Your task to perform on an android device: find which apps use the phone's location Image 0: 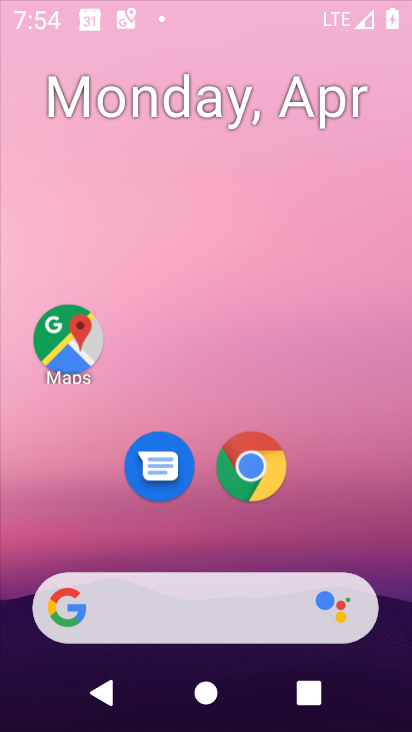
Step 0: click (301, 133)
Your task to perform on an android device: find which apps use the phone's location Image 1: 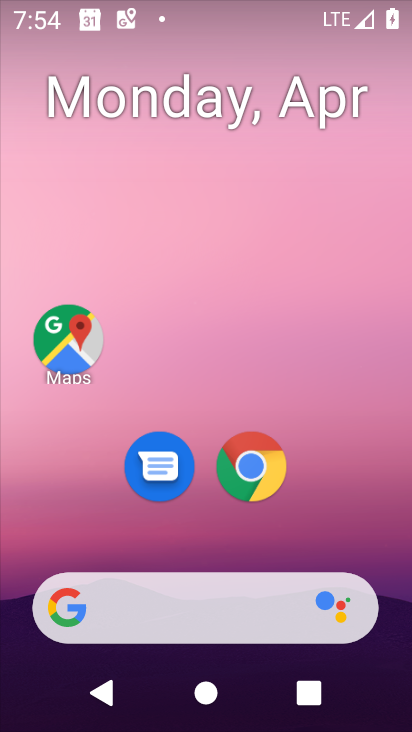
Step 1: click (237, 134)
Your task to perform on an android device: find which apps use the phone's location Image 2: 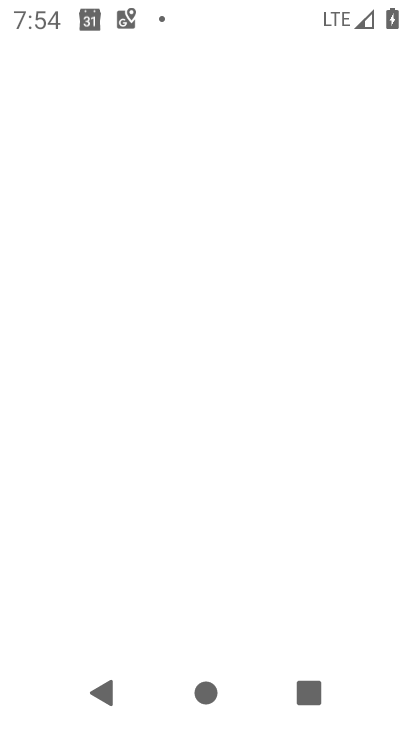
Step 2: drag from (209, 603) to (220, 359)
Your task to perform on an android device: find which apps use the phone's location Image 3: 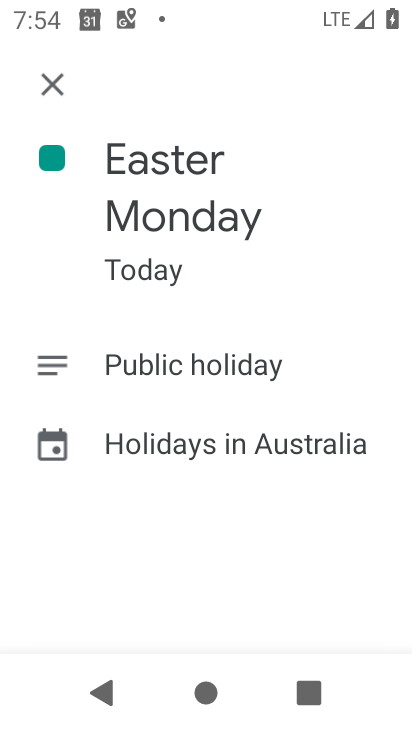
Step 3: press home button
Your task to perform on an android device: find which apps use the phone's location Image 4: 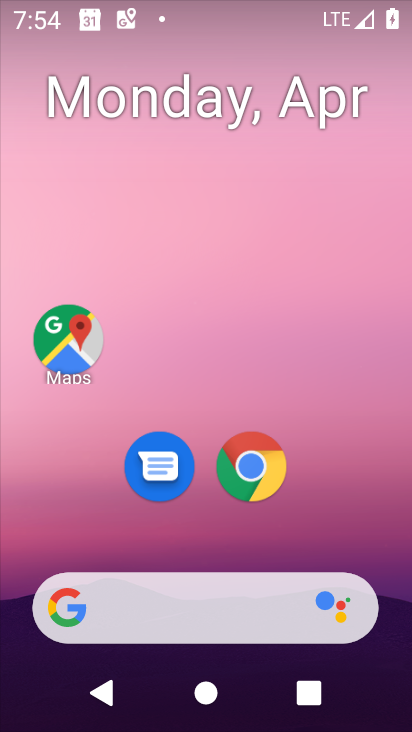
Step 4: drag from (211, 547) to (208, 185)
Your task to perform on an android device: find which apps use the phone's location Image 5: 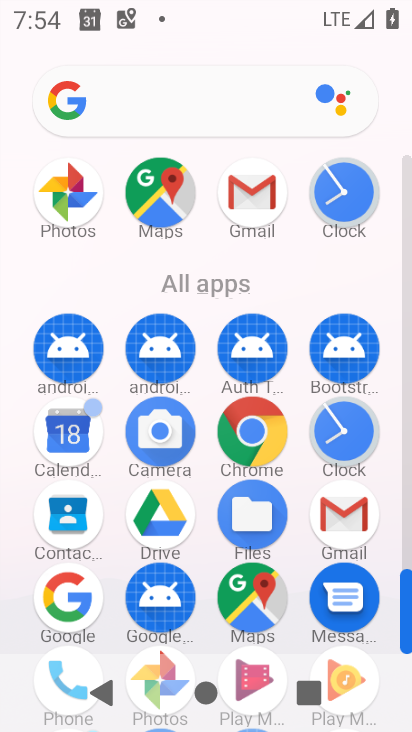
Step 5: drag from (208, 614) to (205, 212)
Your task to perform on an android device: find which apps use the phone's location Image 6: 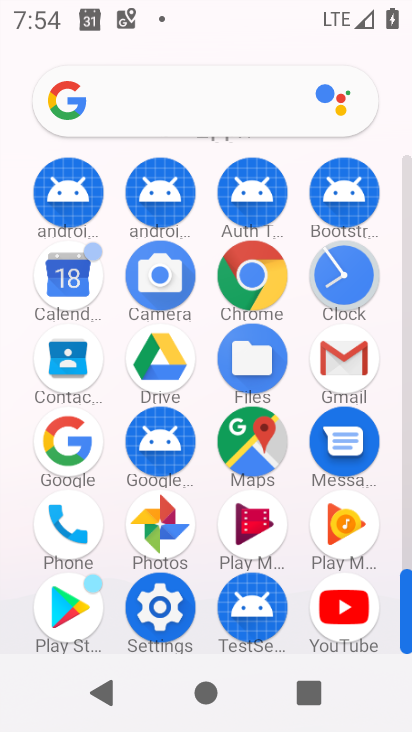
Step 6: click (163, 609)
Your task to perform on an android device: find which apps use the phone's location Image 7: 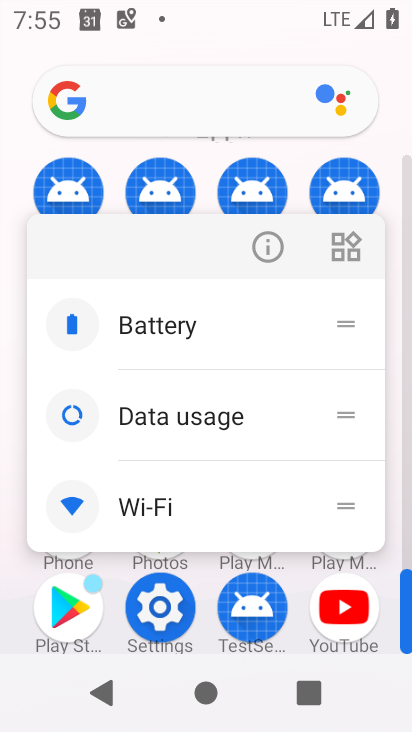
Step 7: click (256, 252)
Your task to perform on an android device: find which apps use the phone's location Image 8: 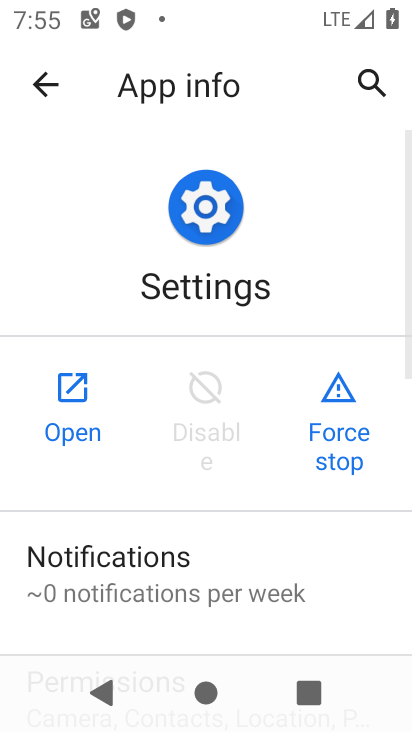
Step 8: click (77, 387)
Your task to perform on an android device: find which apps use the phone's location Image 9: 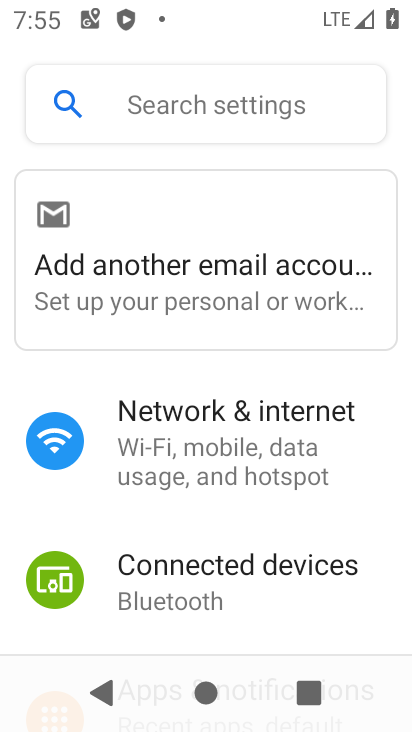
Step 9: drag from (230, 550) to (247, 290)
Your task to perform on an android device: find which apps use the phone's location Image 10: 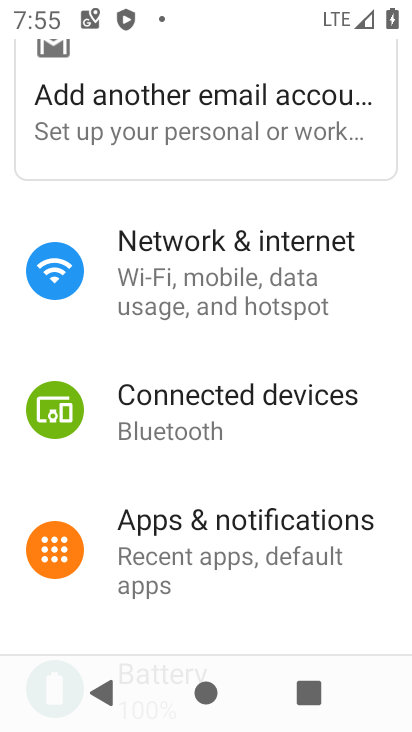
Step 10: drag from (230, 584) to (323, 44)
Your task to perform on an android device: find which apps use the phone's location Image 11: 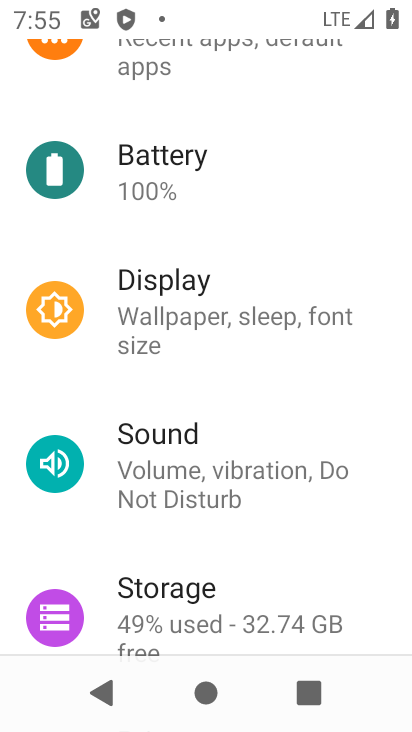
Step 11: drag from (226, 593) to (261, 96)
Your task to perform on an android device: find which apps use the phone's location Image 12: 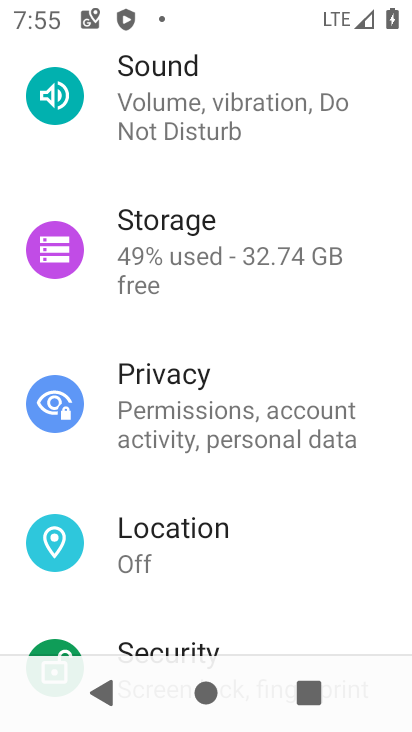
Step 12: click (199, 548)
Your task to perform on an android device: find which apps use the phone's location Image 13: 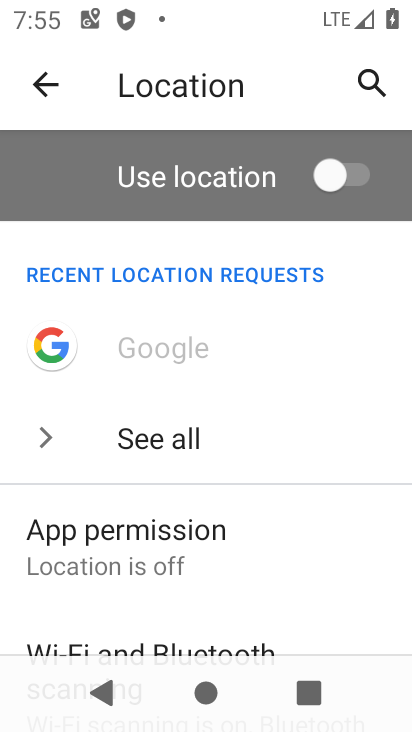
Step 13: drag from (204, 567) to (242, 365)
Your task to perform on an android device: find which apps use the phone's location Image 14: 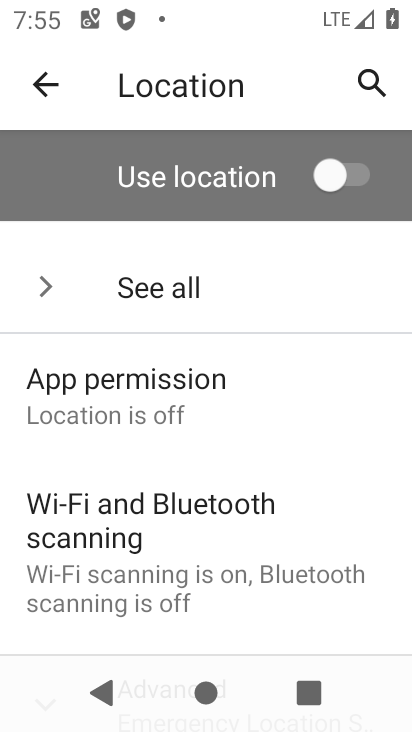
Step 14: click (199, 415)
Your task to perform on an android device: find which apps use the phone's location Image 15: 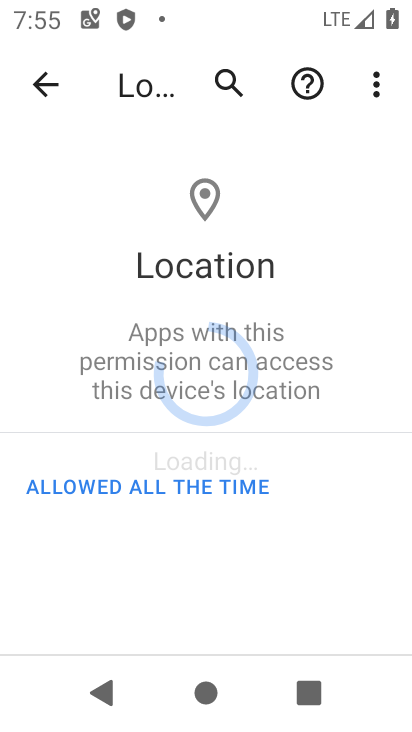
Step 15: task complete